Your task to perform on an android device: Open the calendar app, open the side menu, and click the "Day" option Image 0: 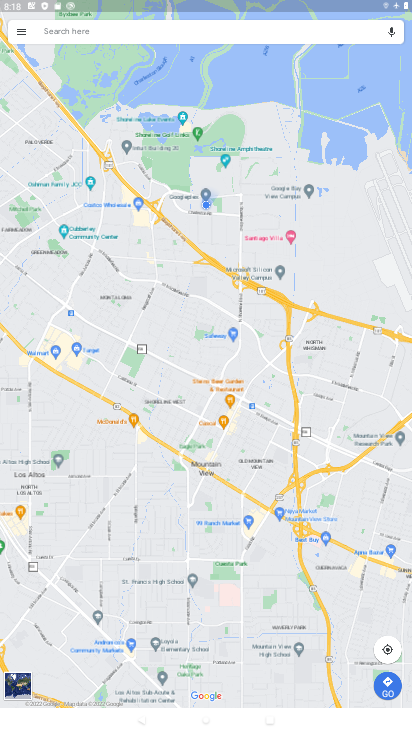
Step 0: click (16, 31)
Your task to perform on an android device: Open the calendar app, open the side menu, and click the "Day" option Image 1: 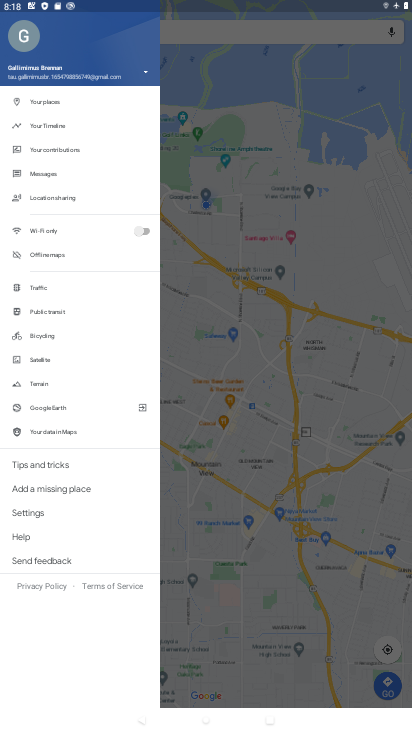
Step 1: press home button
Your task to perform on an android device: Open the calendar app, open the side menu, and click the "Day" option Image 2: 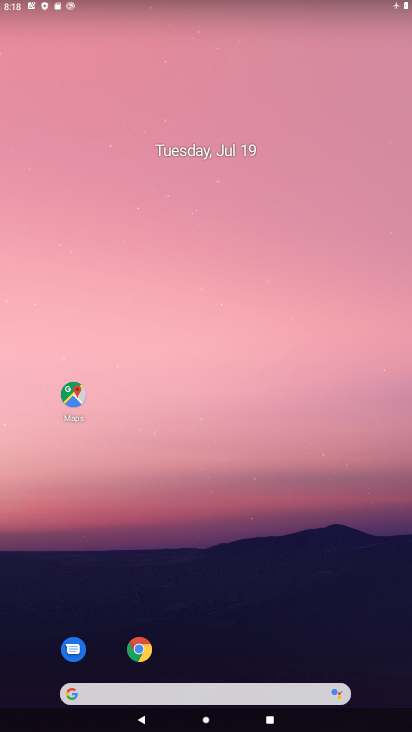
Step 2: drag from (199, 655) to (224, 51)
Your task to perform on an android device: Open the calendar app, open the side menu, and click the "Day" option Image 3: 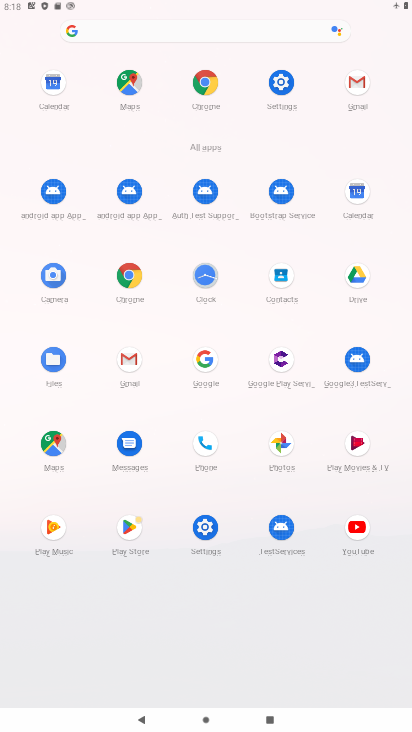
Step 3: click (349, 186)
Your task to perform on an android device: Open the calendar app, open the side menu, and click the "Day" option Image 4: 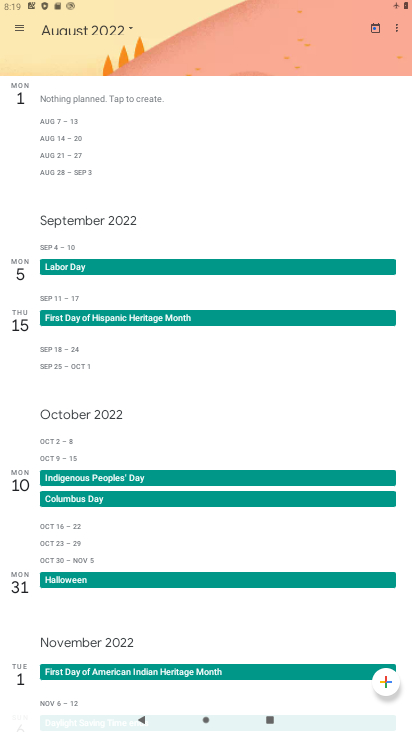
Step 4: click (16, 28)
Your task to perform on an android device: Open the calendar app, open the side menu, and click the "Day" option Image 5: 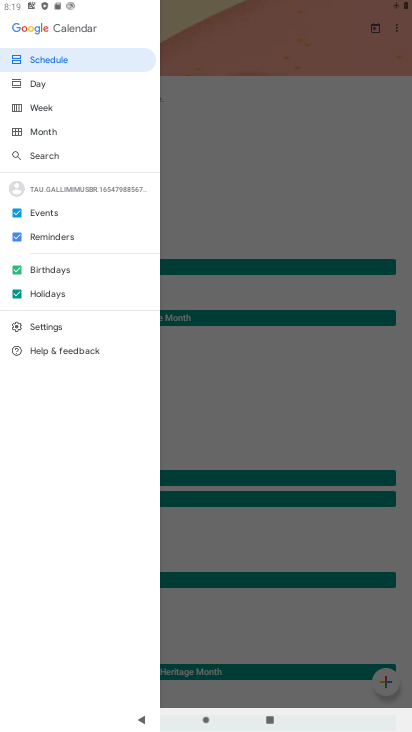
Step 5: click (36, 85)
Your task to perform on an android device: Open the calendar app, open the side menu, and click the "Day" option Image 6: 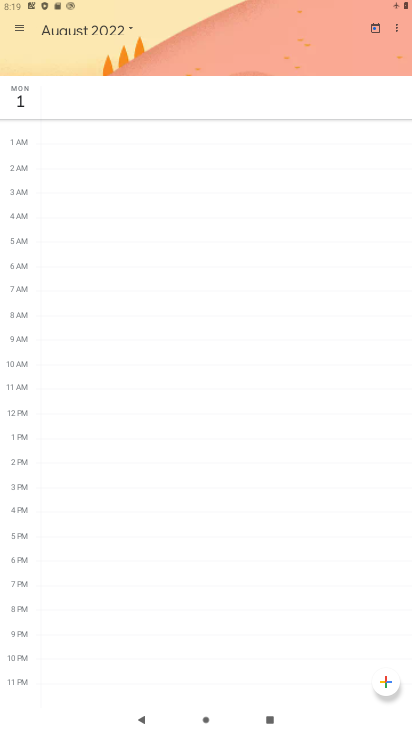
Step 6: click (17, 28)
Your task to perform on an android device: Open the calendar app, open the side menu, and click the "Day" option Image 7: 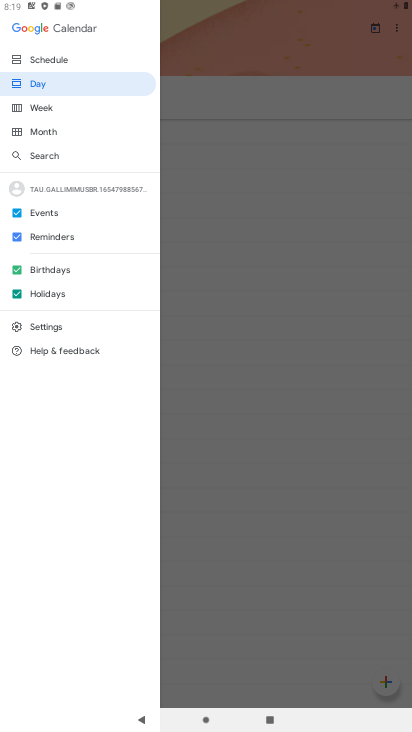
Step 7: click (41, 88)
Your task to perform on an android device: Open the calendar app, open the side menu, and click the "Day" option Image 8: 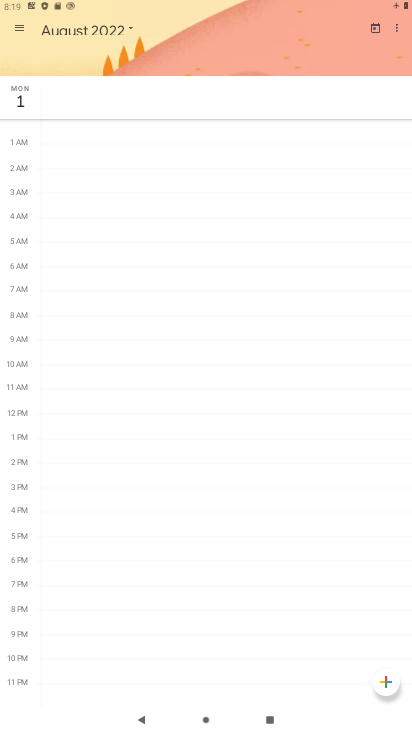
Step 8: task complete